Your task to perform on an android device: Search for "duracell triple a" on bestbuy, select the first entry, and add it to the cart. Image 0: 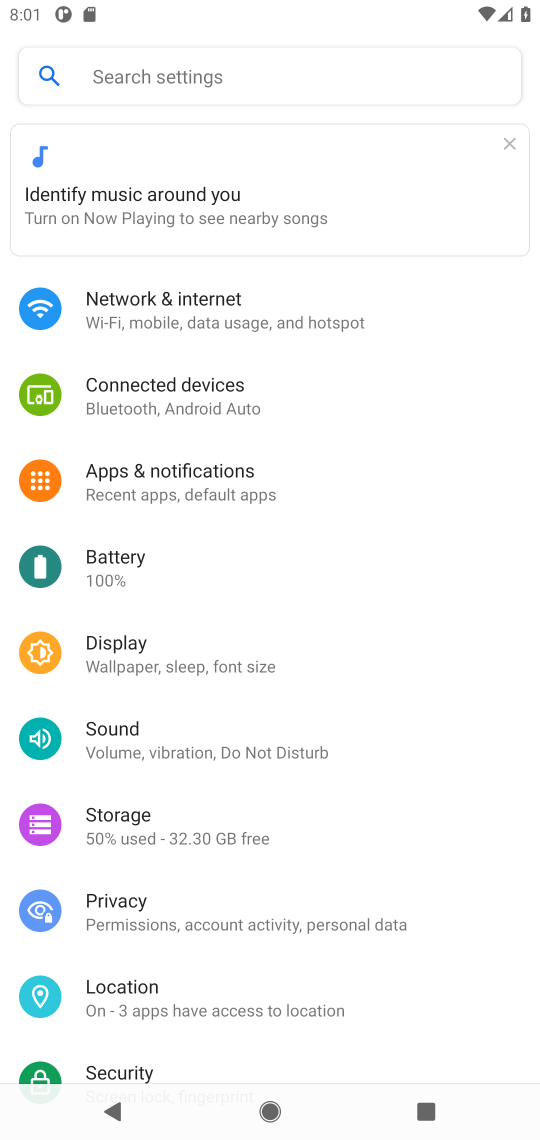
Step 0: press home button
Your task to perform on an android device: Search for "duracell triple a" on bestbuy, select the first entry, and add it to the cart. Image 1: 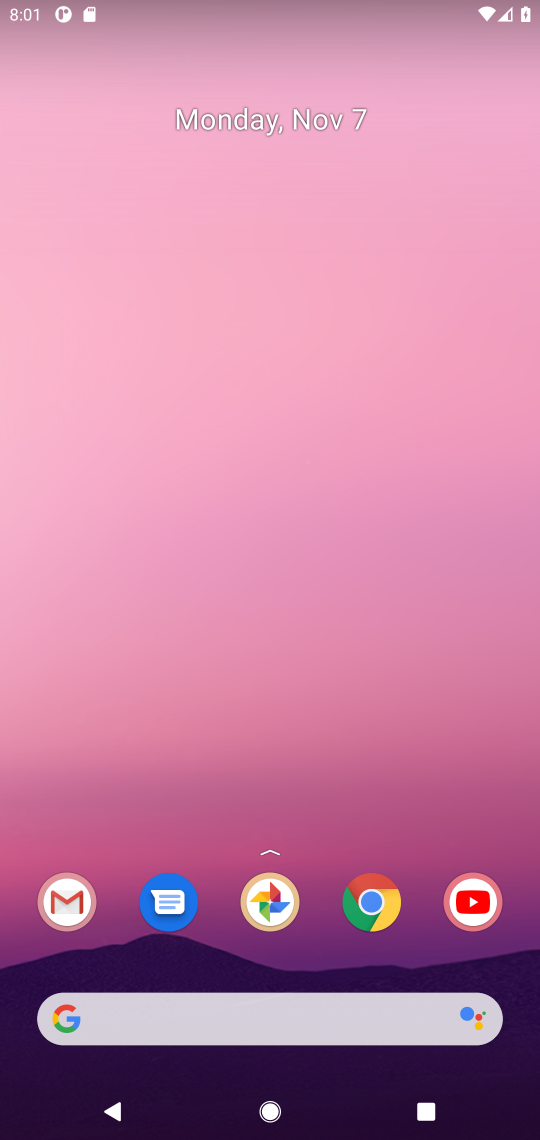
Step 1: click (374, 908)
Your task to perform on an android device: Search for "duracell triple a" on bestbuy, select the first entry, and add it to the cart. Image 2: 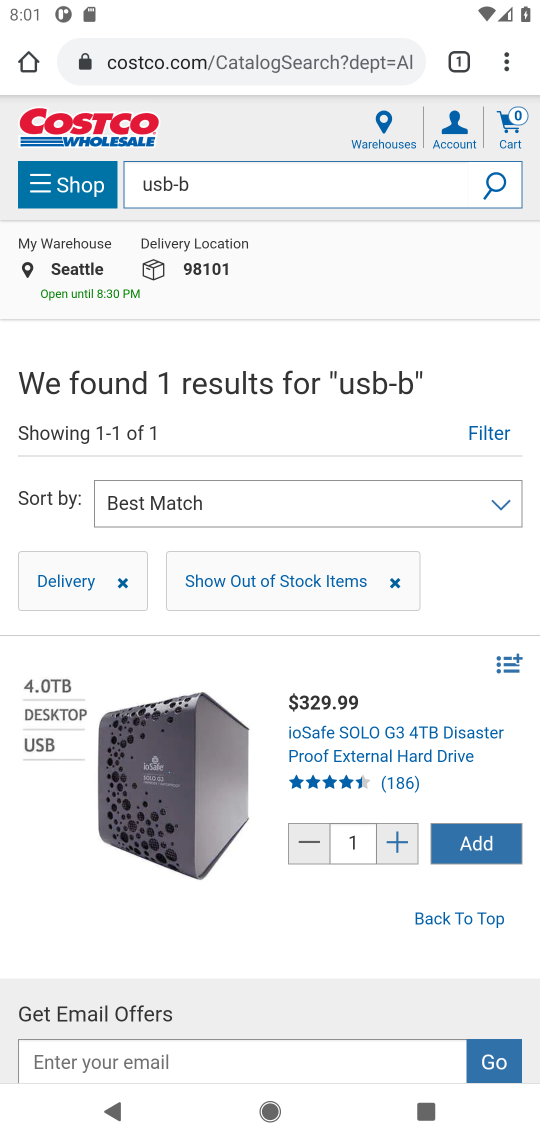
Step 2: click (225, 68)
Your task to perform on an android device: Search for "duracell triple a" on bestbuy, select the first entry, and add it to the cart. Image 3: 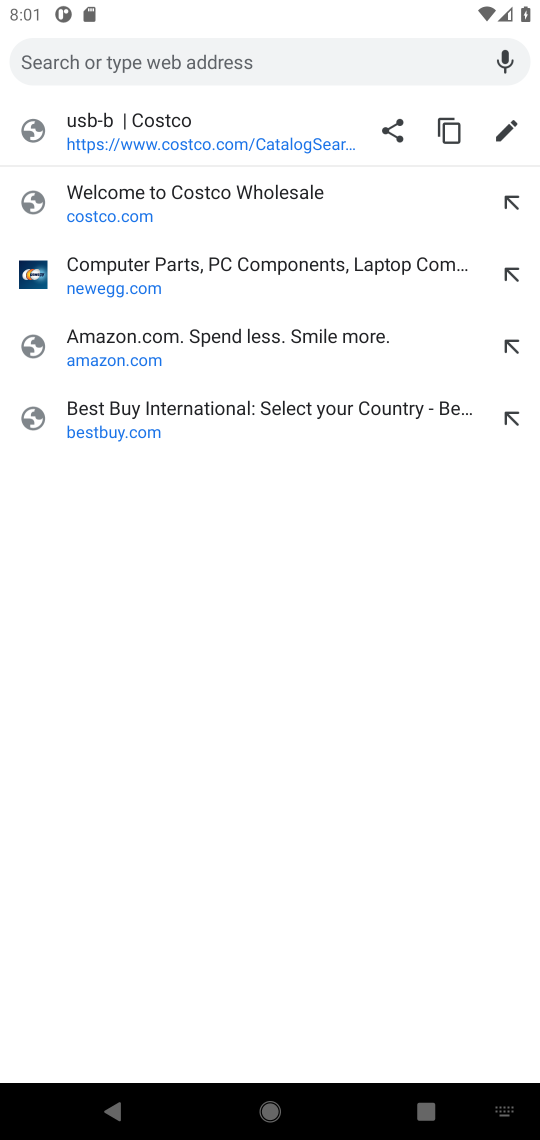
Step 3: click (106, 431)
Your task to perform on an android device: Search for "duracell triple a" on bestbuy, select the first entry, and add it to the cart. Image 4: 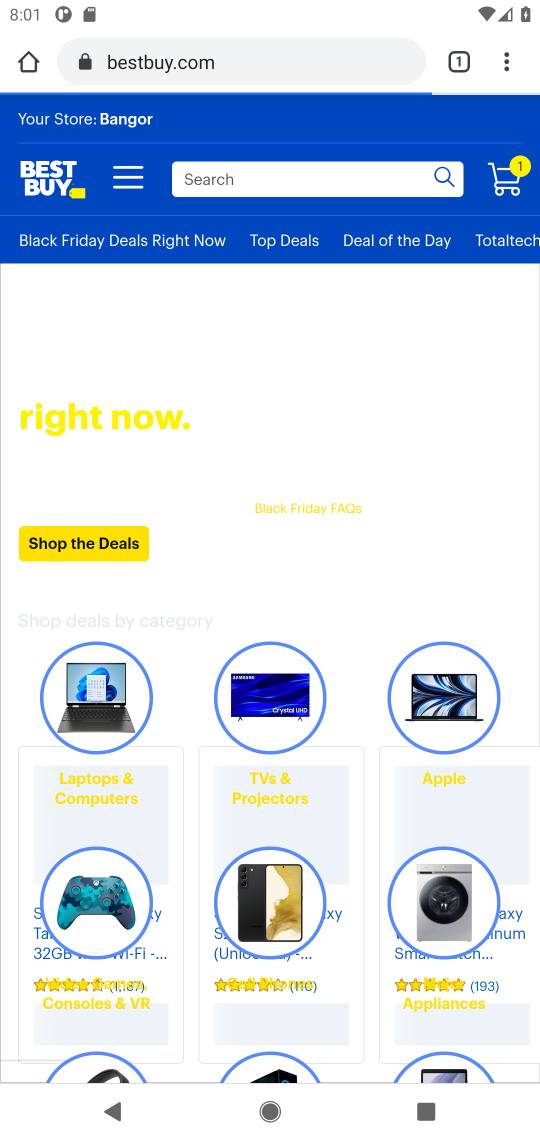
Step 4: click (197, 182)
Your task to perform on an android device: Search for "duracell triple a" on bestbuy, select the first entry, and add it to the cart. Image 5: 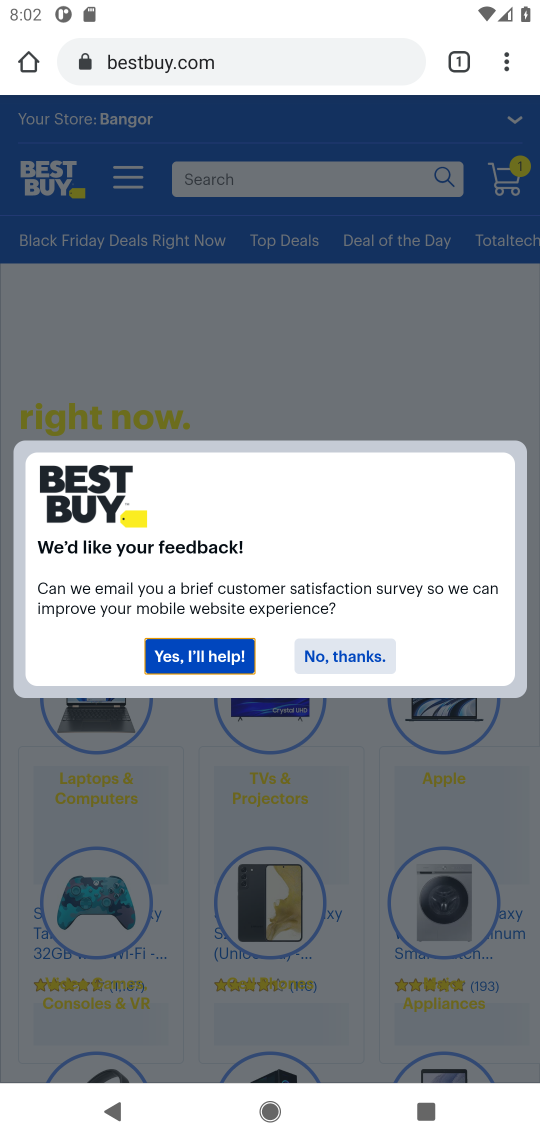
Step 5: click (389, 654)
Your task to perform on an android device: Search for "duracell triple a" on bestbuy, select the first entry, and add it to the cart. Image 6: 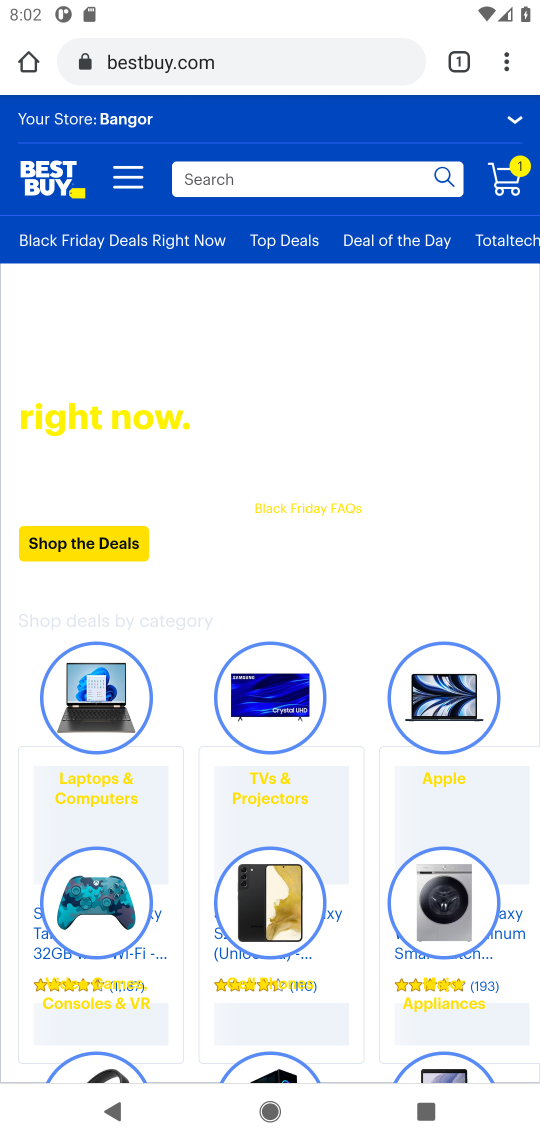
Step 6: click (248, 175)
Your task to perform on an android device: Search for "duracell triple a" on bestbuy, select the first entry, and add it to the cart. Image 7: 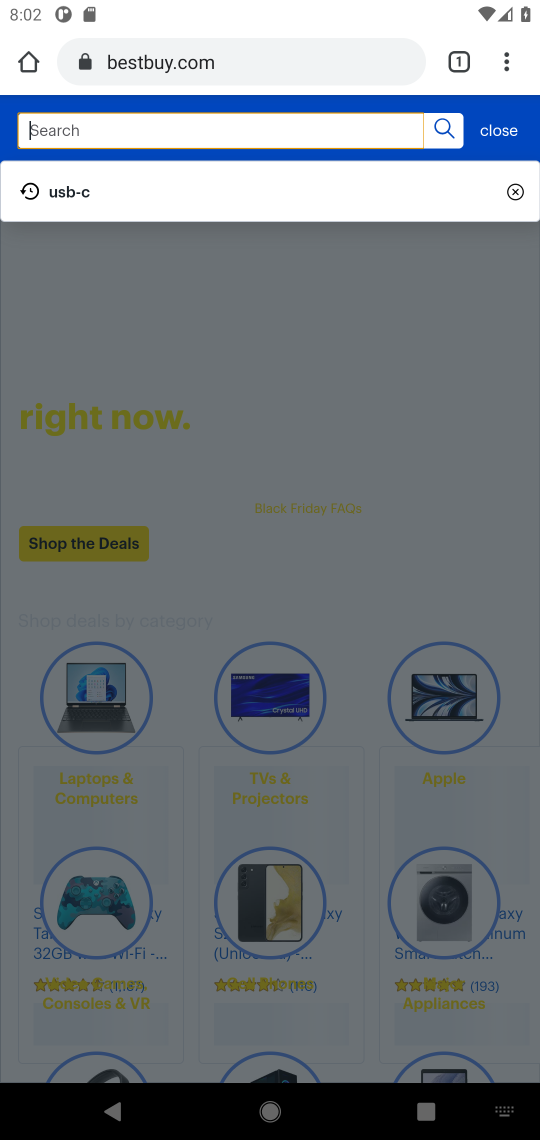
Step 7: type "duracell triple a"
Your task to perform on an android device: Search for "duracell triple a" on bestbuy, select the first entry, and add it to the cart. Image 8: 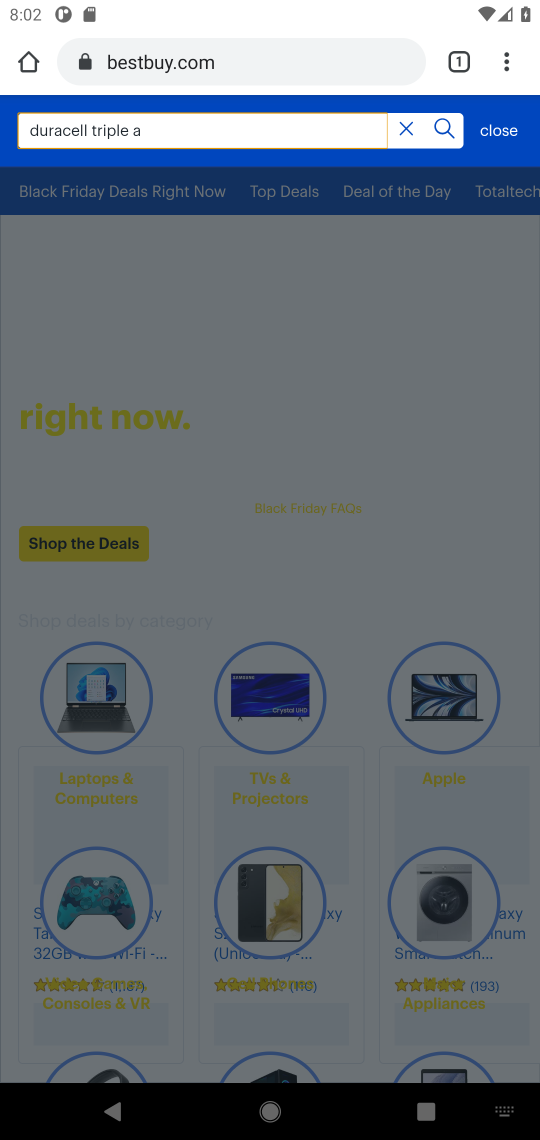
Step 8: click (445, 126)
Your task to perform on an android device: Search for "duracell triple a" on bestbuy, select the first entry, and add it to the cart. Image 9: 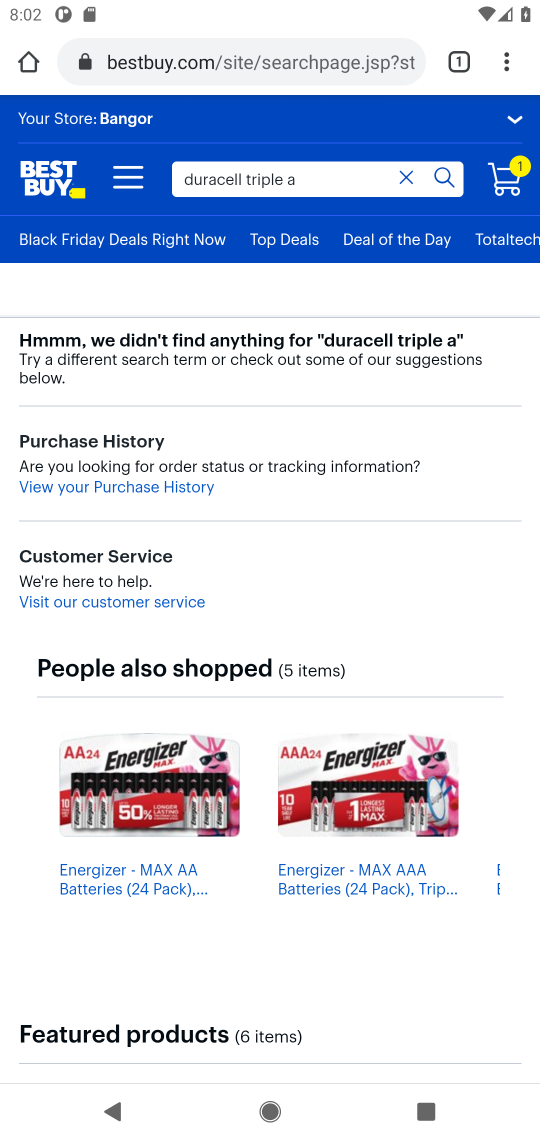
Step 9: task complete